Your task to perform on an android device: Open accessibility settings Image 0: 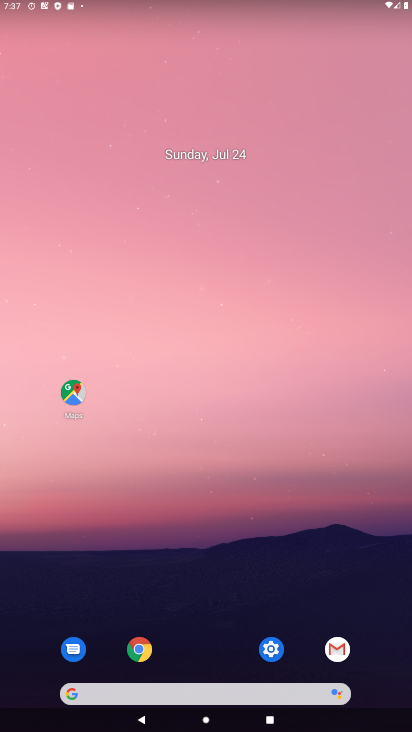
Step 0: click (278, 658)
Your task to perform on an android device: Open accessibility settings Image 1: 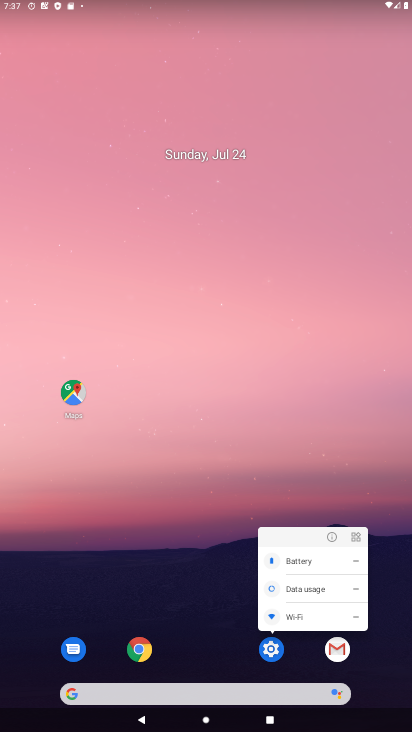
Step 1: click (280, 654)
Your task to perform on an android device: Open accessibility settings Image 2: 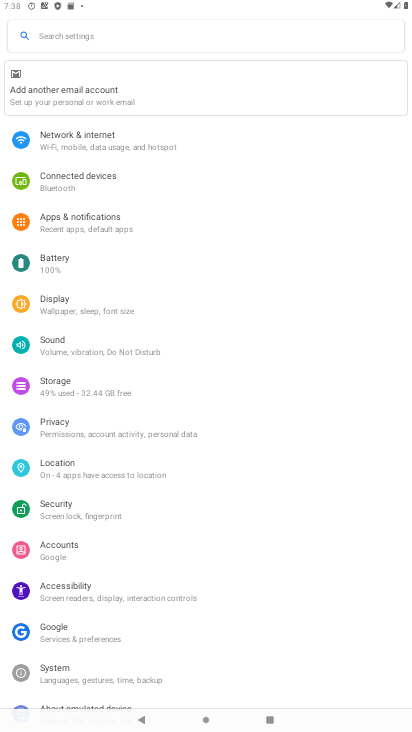
Step 2: click (51, 36)
Your task to perform on an android device: Open accessibility settings Image 3: 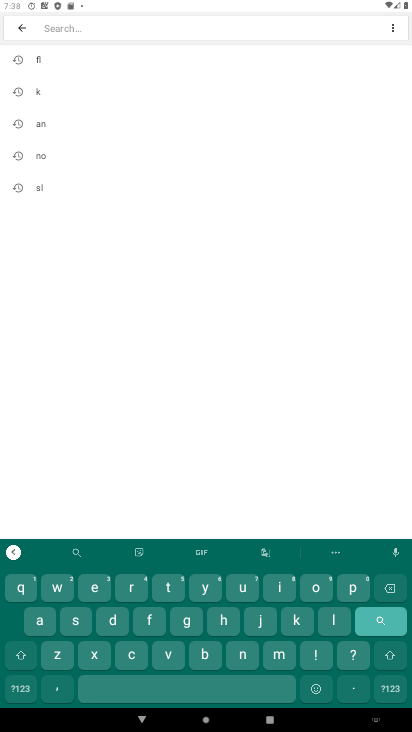
Step 3: click (36, 627)
Your task to perform on an android device: Open accessibility settings Image 4: 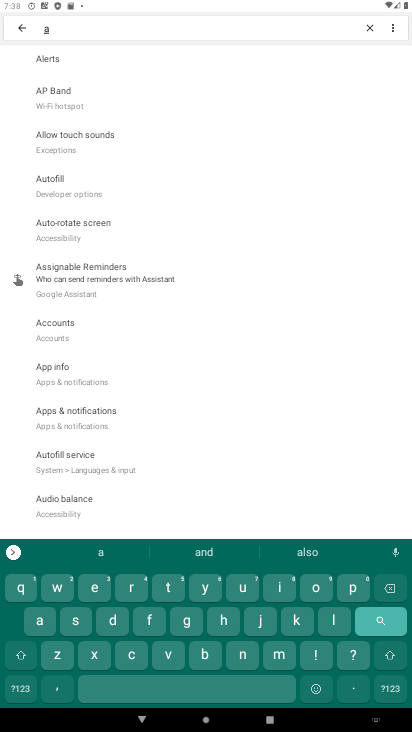
Step 4: click (133, 659)
Your task to perform on an android device: Open accessibility settings Image 5: 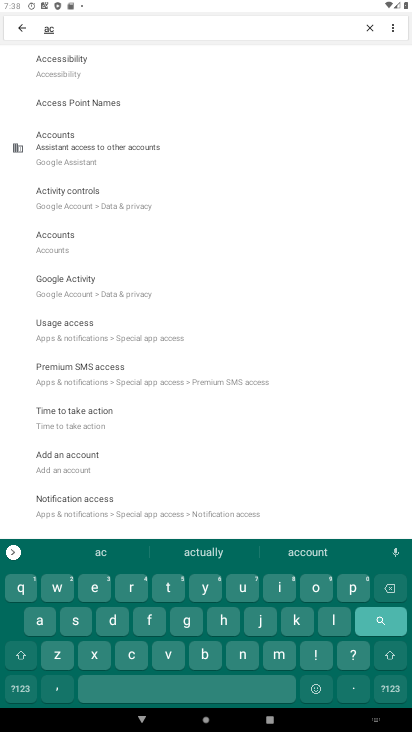
Step 5: click (76, 61)
Your task to perform on an android device: Open accessibility settings Image 6: 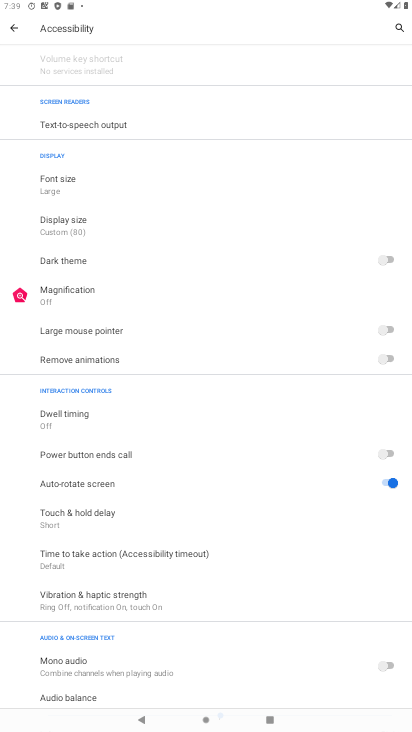
Step 6: task complete